Your task to perform on an android device: toggle sleep mode Image 0: 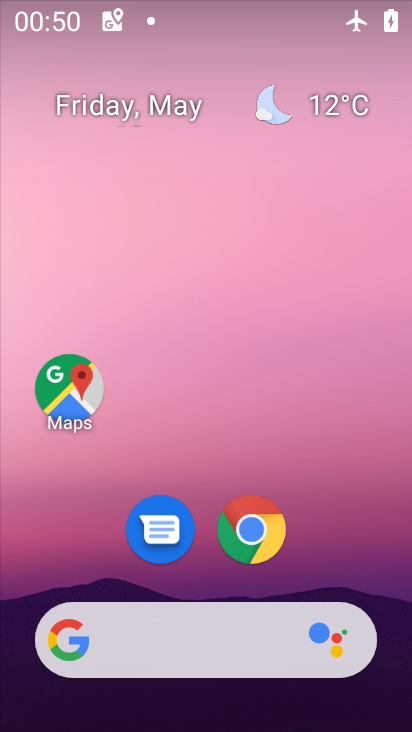
Step 0: drag from (317, 590) to (300, 224)
Your task to perform on an android device: toggle sleep mode Image 1: 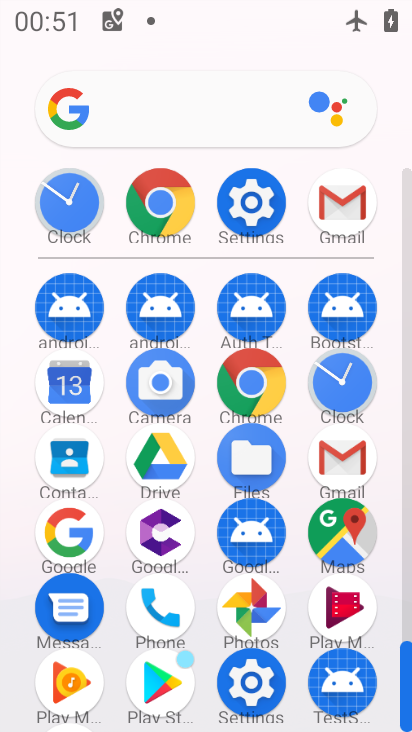
Step 1: click (255, 200)
Your task to perform on an android device: toggle sleep mode Image 2: 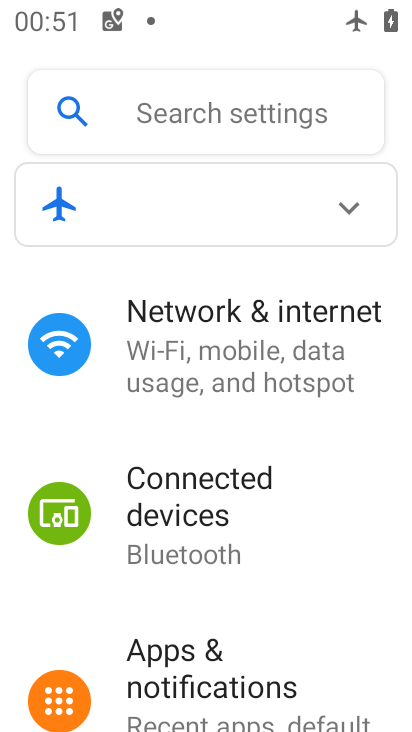
Step 2: task complete